Your task to perform on an android device: Add "usb-a to usb-b" to the cart on target.com, then select checkout. Image 0: 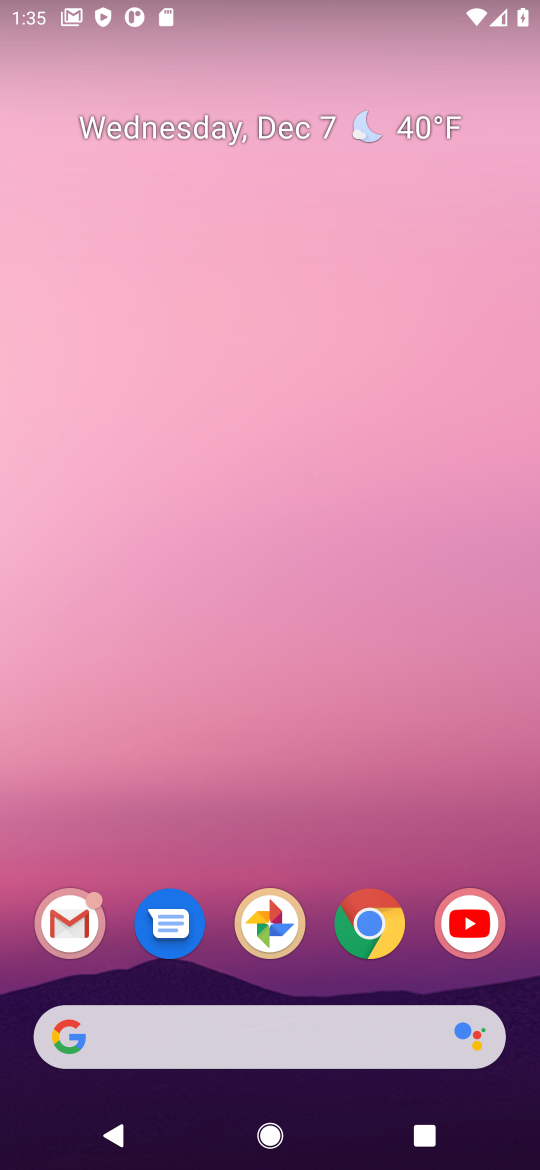
Step 0: click (377, 922)
Your task to perform on an android device: Add "usb-a to usb-b" to the cart on target.com, then select checkout. Image 1: 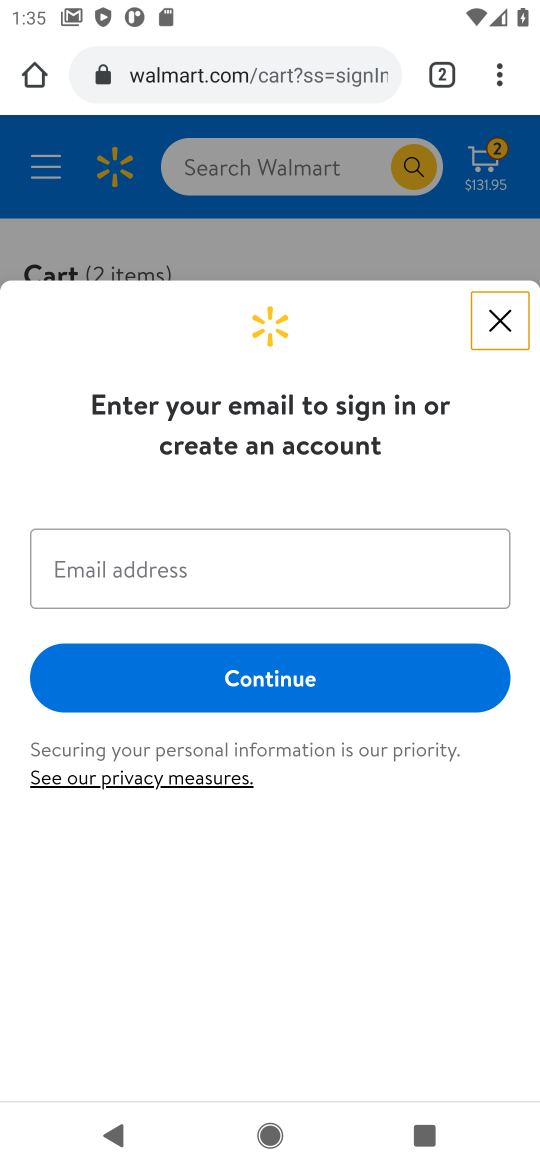
Step 1: click (492, 313)
Your task to perform on an android device: Add "usb-a to usb-b" to the cart on target.com, then select checkout. Image 2: 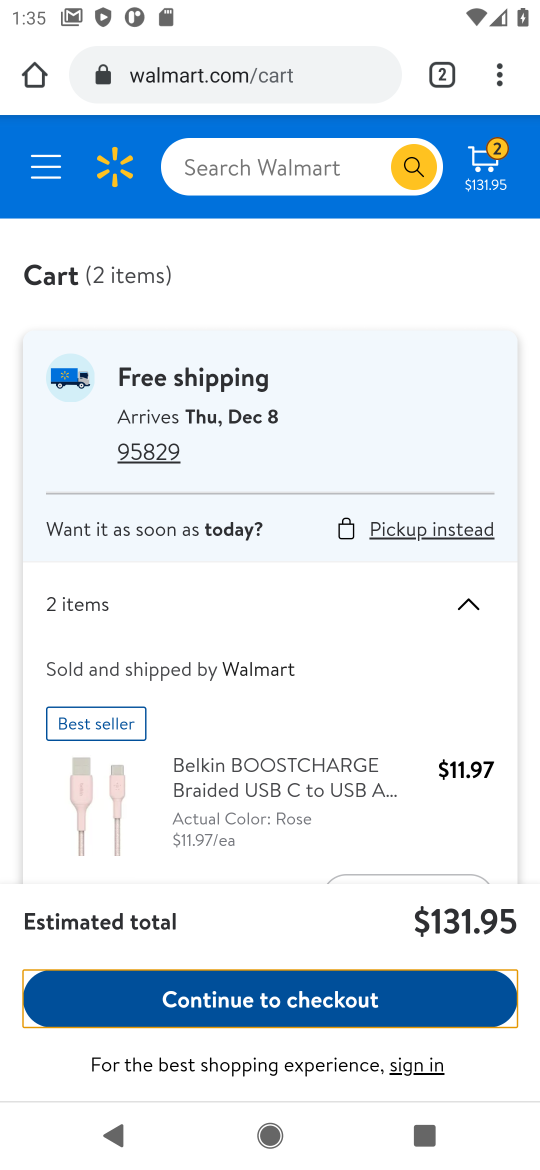
Step 2: click (260, 71)
Your task to perform on an android device: Add "usb-a to usb-b" to the cart on target.com, then select checkout. Image 3: 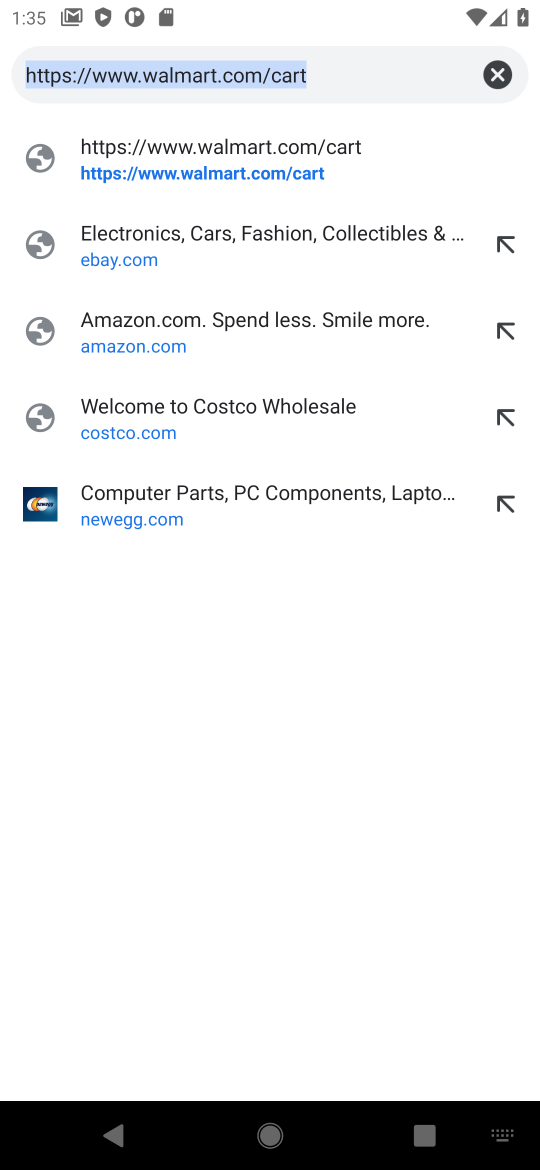
Step 3: type "target"
Your task to perform on an android device: Add "usb-a to usb-b" to the cart on target.com, then select checkout. Image 4: 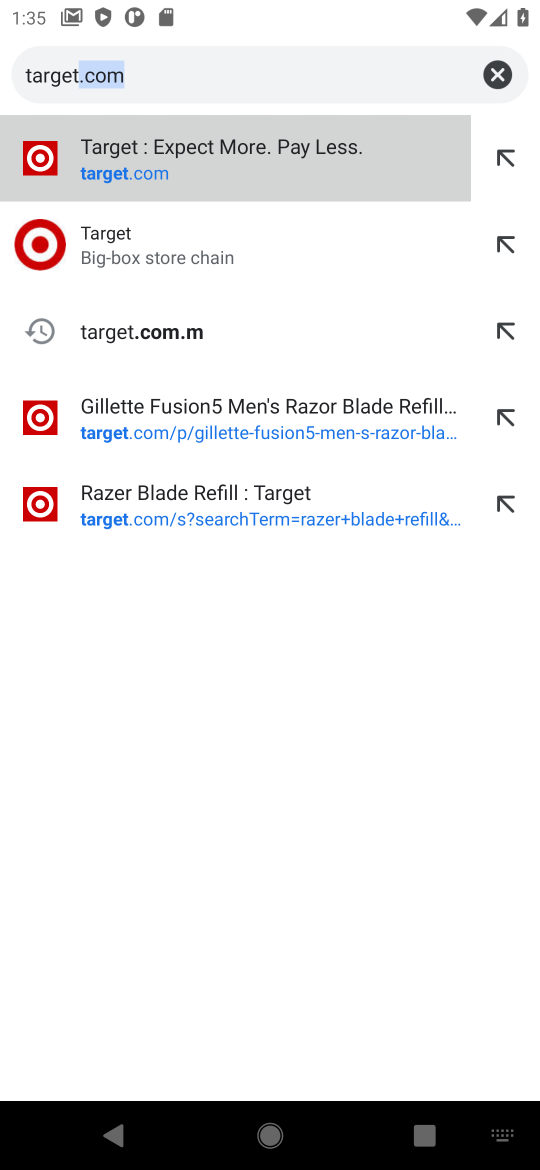
Step 4: click (172, 152)
Your task to perform on an android device: Add "usb-a to usb-b" to the cart on target.com, then select checkout. Image 5: 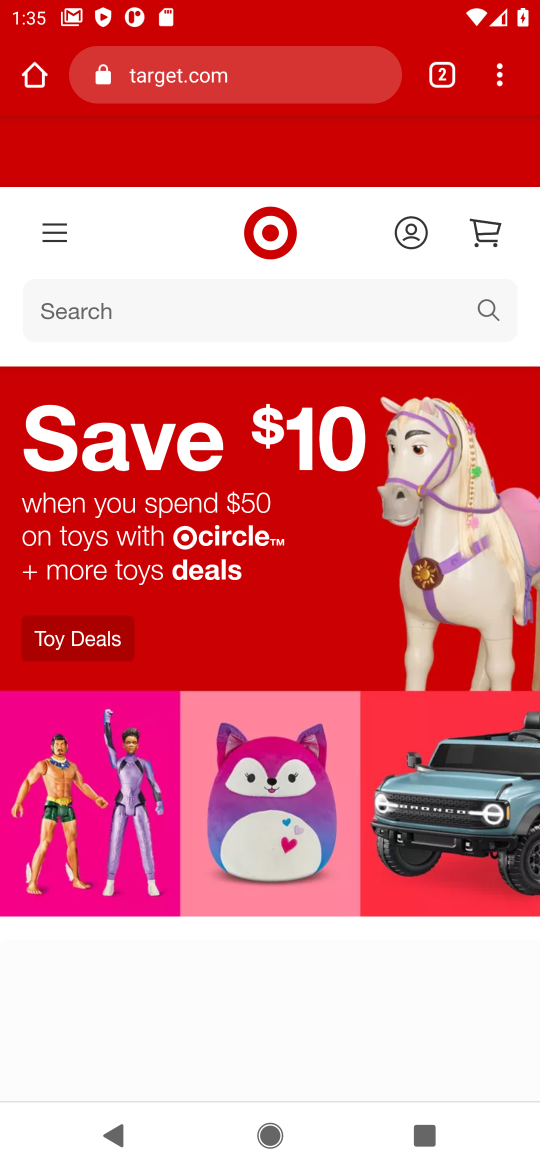
Step 5: click (376, 303)
Your task to perform on an android device: Add "usb-a to usb-b" to the cart on target.com, then select checkout. Image 6: 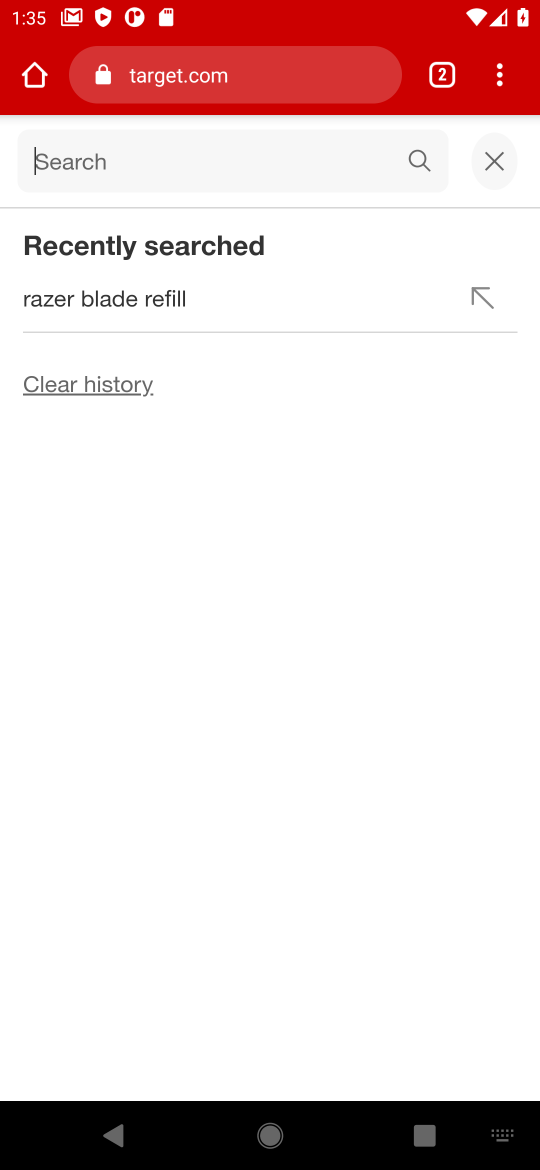
Step 6: type "usb-a to usb-b"
Your task to perform on an android device: Add "usb-a to usb-b" to the cart on target.com, then select checkout. Image 7: 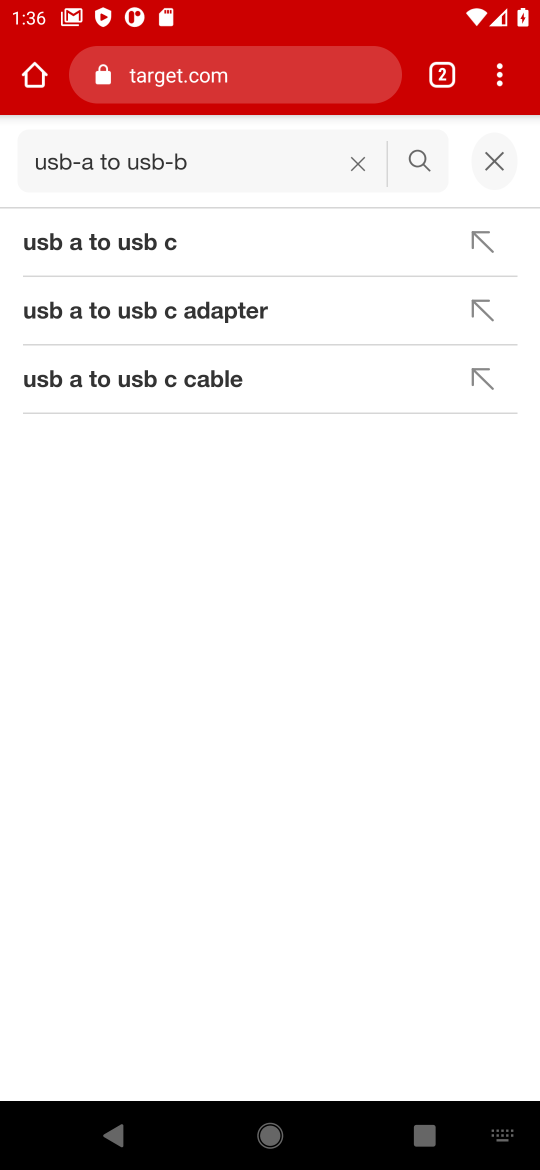
Step 7: click (187, 240)
Your task to perform on an android device: Add "usb-a to usb-b" to the cart on target.com, then select checkout. Image 8: 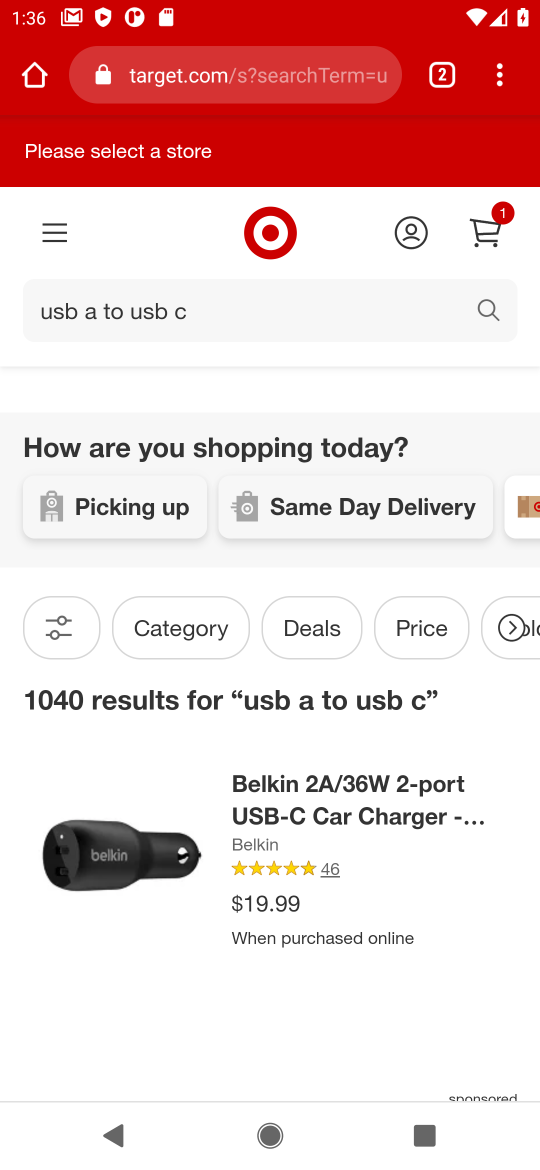
Step 8: click (126, 888)
Your task to perform on an android device: Add "usb-a to usb-b" to the cart on target.com, then select checkout. Image 9: 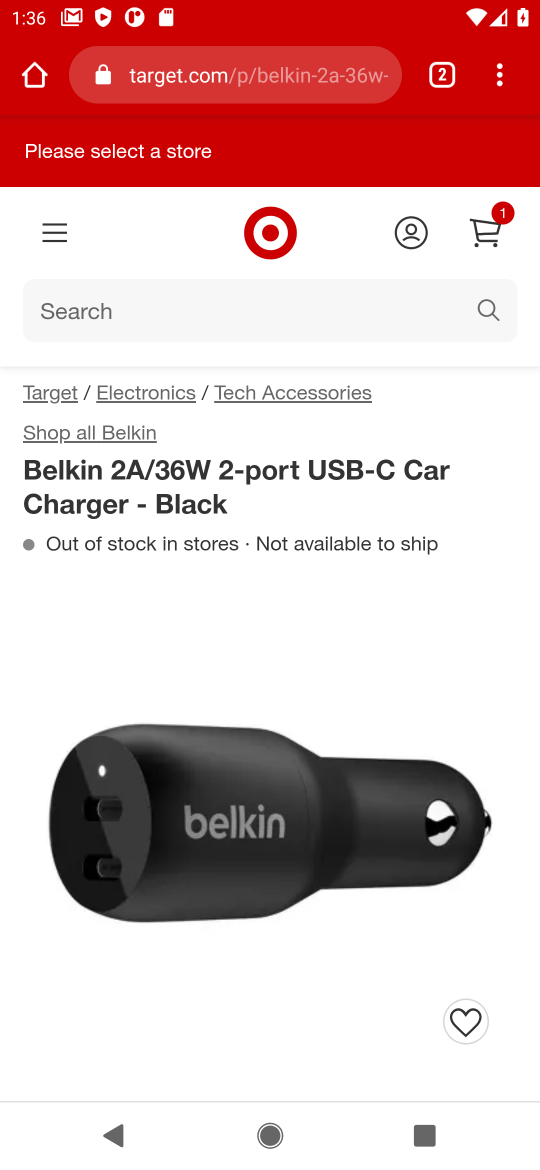
Step 9: drag from (282, 1017) to (248, 338)
Your task to perform on an android device: Add "usb-a to usb-b" to the cart on target.com, then select checkout. Image 10: 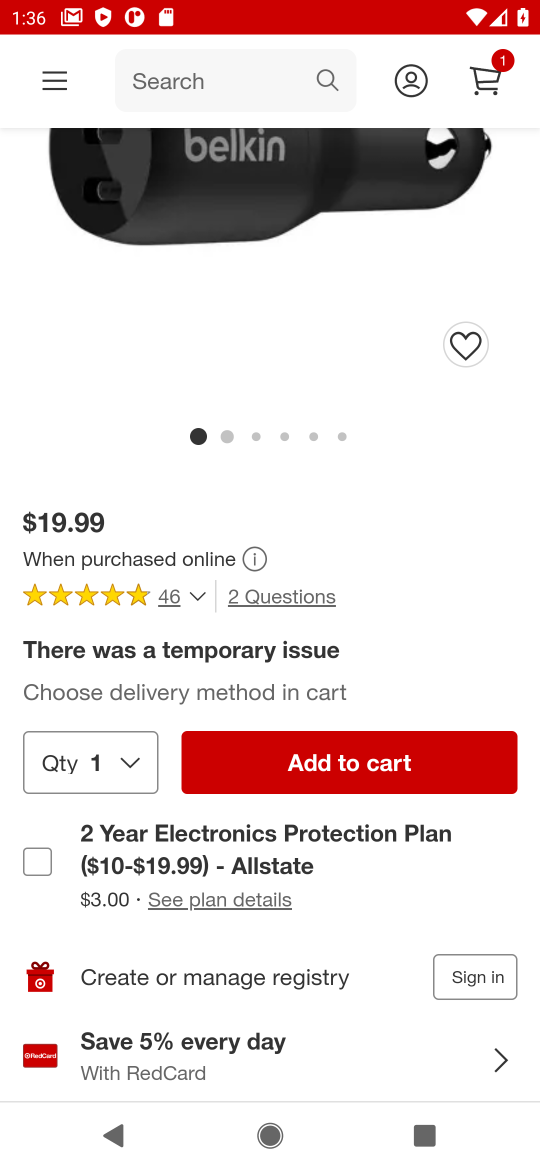
Step 10: click (329, 776)
Your task to perform on an android device: Add "usb-a to usb-b" to the cart on target.com, then select checkout. Image 11: 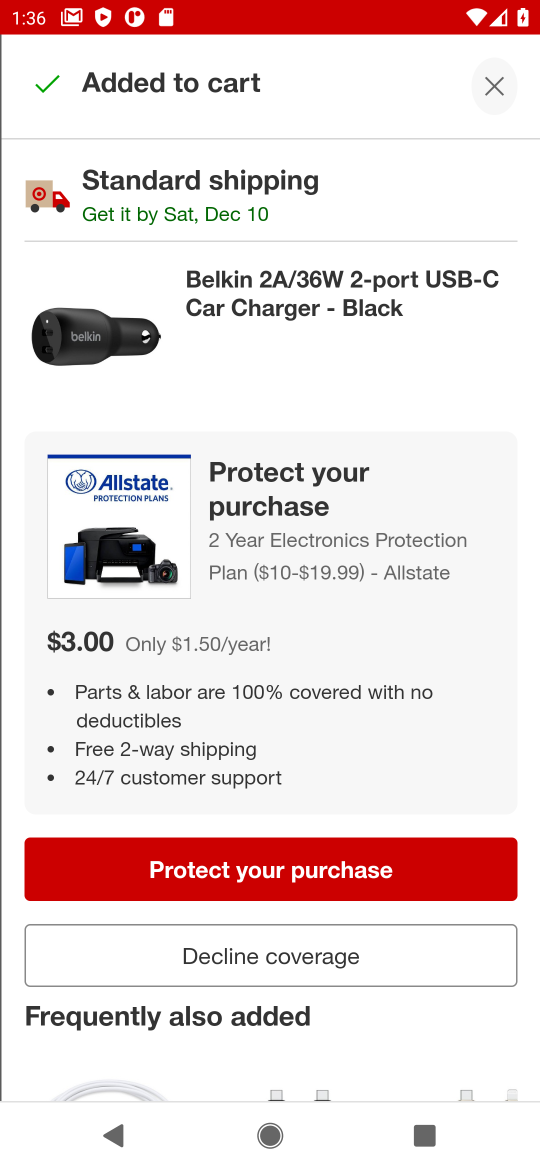
Step 11: task complete